Your task to perform on an android device: Search for Mexican restaurants on Maps Image 0: 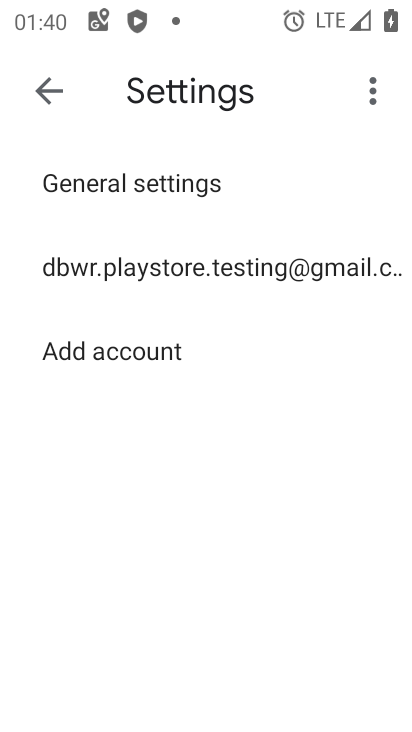
Step 0: press home button
Your task to perform on an android device: Search for Mexican restaurants on Maps Image 1: 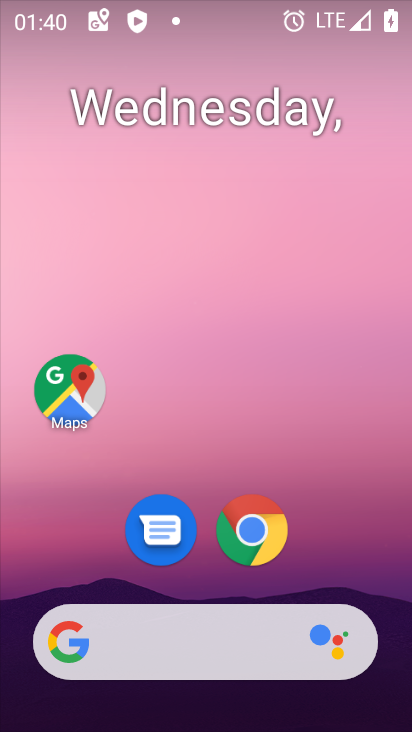
Step 1: drag from (322, 543) to (338, 178)
Your task to perform on an android device: Search for Mexican restaurants on Maps Image 2: 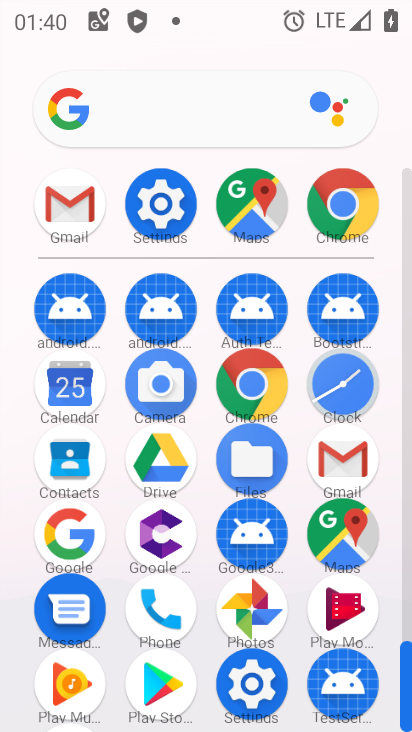
Step 2: click (337, 542)
Your task to perform on an android device: Search for Mexican restaurants on Maps Image 3: 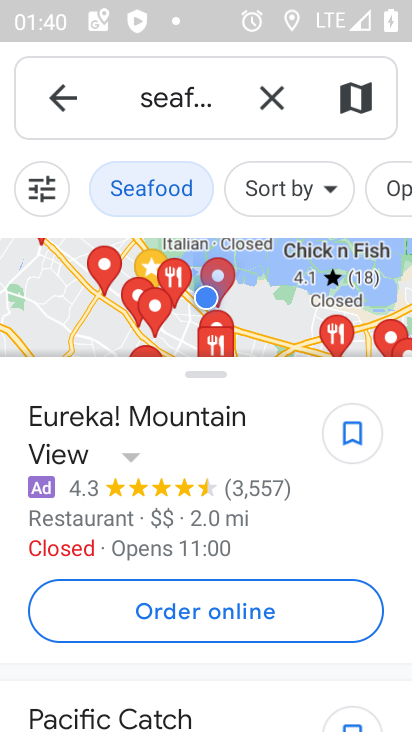
Step 3: click (265, 105)
Your task to perform on an android device: Search for Mexican restaurants on Maps Image 4: 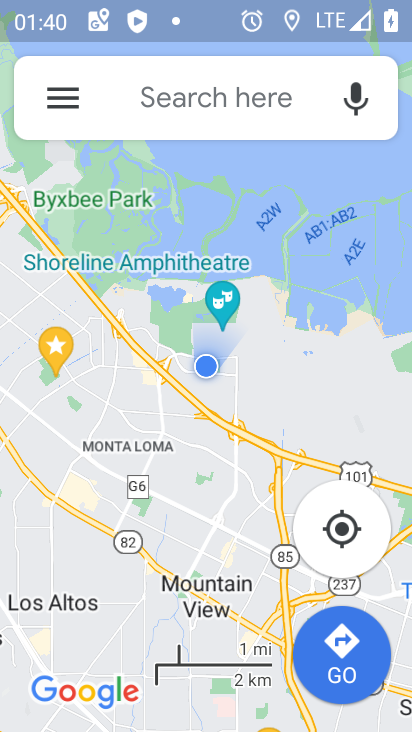
Step 4: click (221, 102)
Your task to perform on an android device: Search for Mexican restaurants on Maps Image 5: 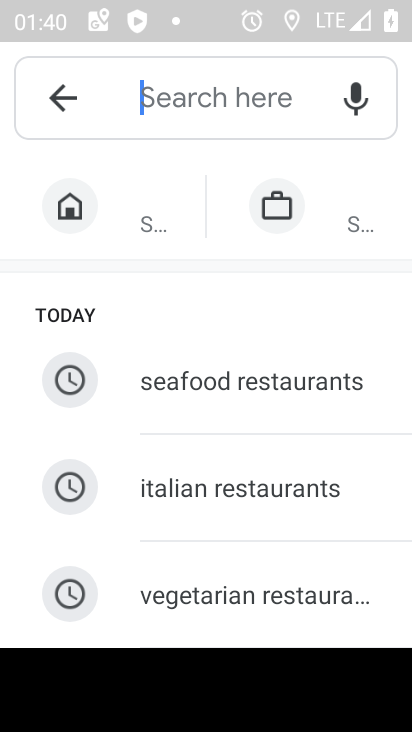
Step 5: type "mexican restaurants "
Your task to perform on an android device: Search for Mexican restaurants on Maps Image 6: 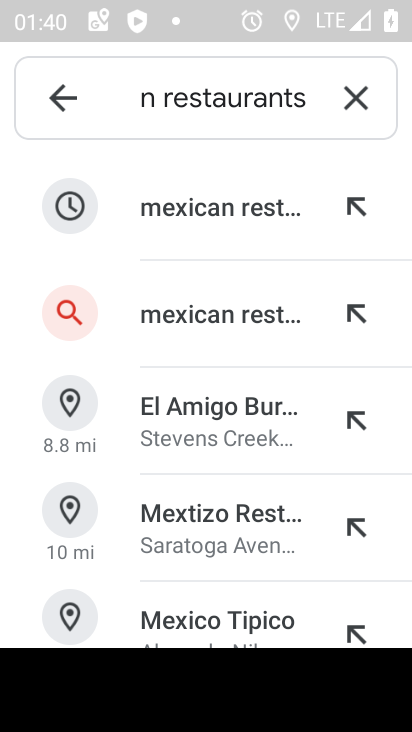
Step 6: click (229, 209)
Your task to perform on an android device: Search for Mexican restaurants on Maps Image 7: 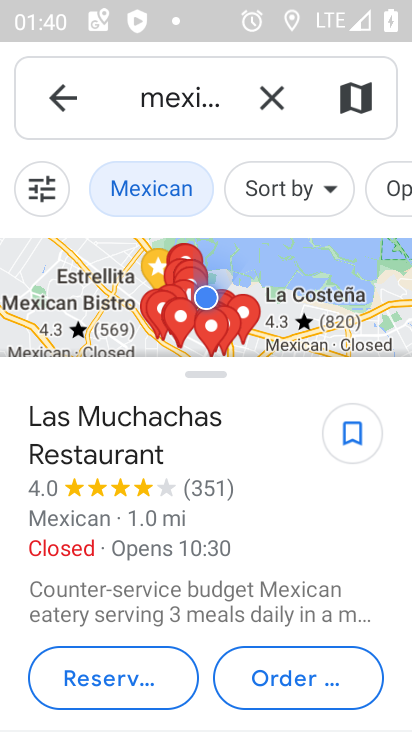
Step 7: task complete